Your task to perform on an android device: Open Youtube and go to the subscriptions tab Image 0: 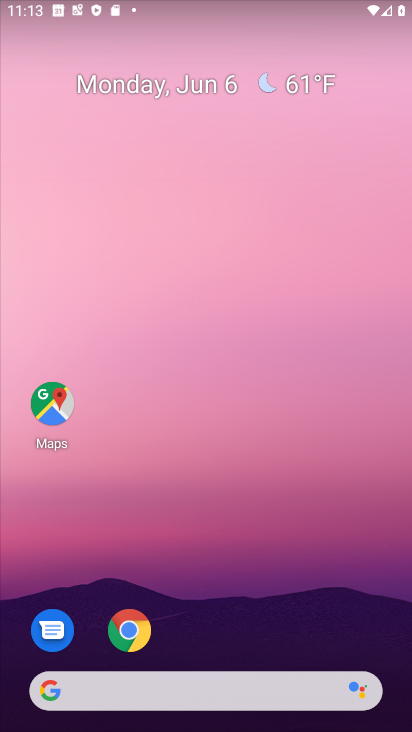
Step 0: drag from (331, 575) to (321, 156)
Your task to perform on an android device: Open Youtube and go to the subscriptions tab Image 1: 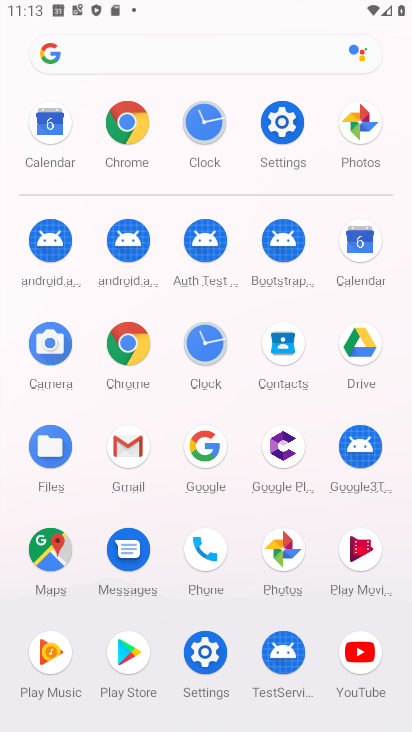
Step 1: click (360, 641)
Your task to perform on an android device: Open Youtube and go to the subscriptions tab Image 2: 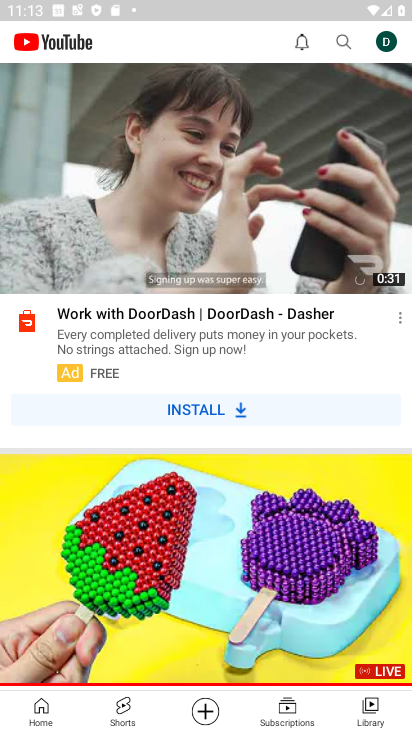
Step 2: click (297, 692)
Your task to perform on an android device: Open Youtube and go to the subscriptions tab Image 3: 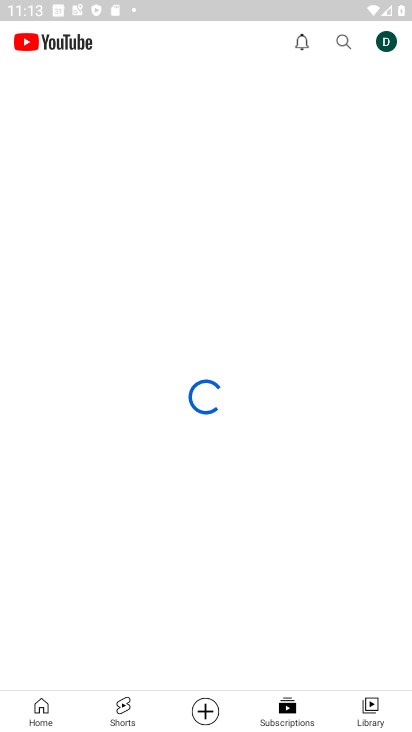
Step 3: click (291, 705)
Your task to perform on an android device: Open Youtube and go to the subscriptions tab Image 4: 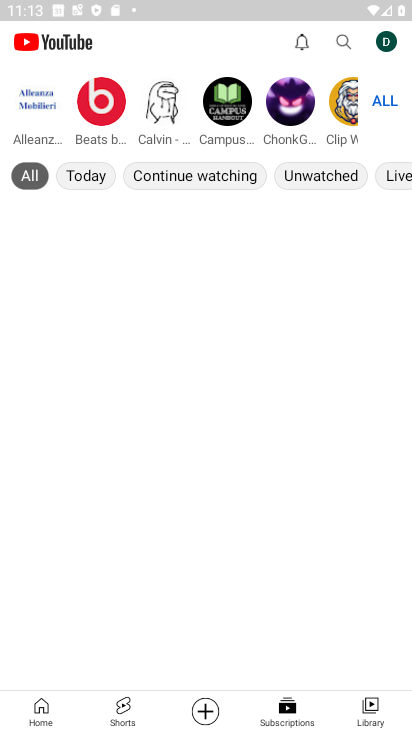
Step 4: task complete